Your task to perform on an android device: What's the weather going to be tomorrow? Image 0: 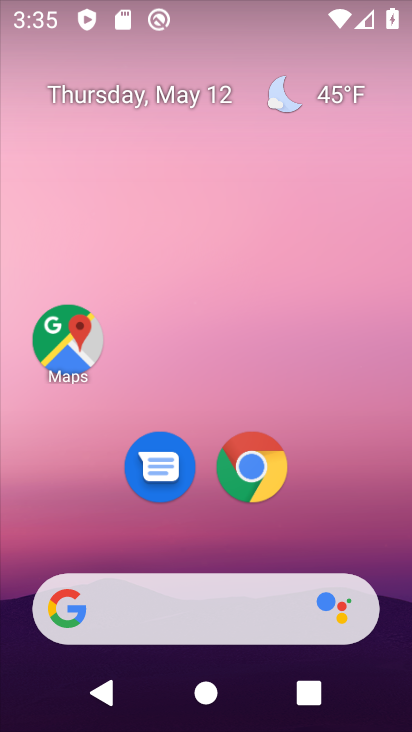
Step 0: click (350, 98)
Your task to perform on an android device: What's the weather going to be tomorrow? Image 1: 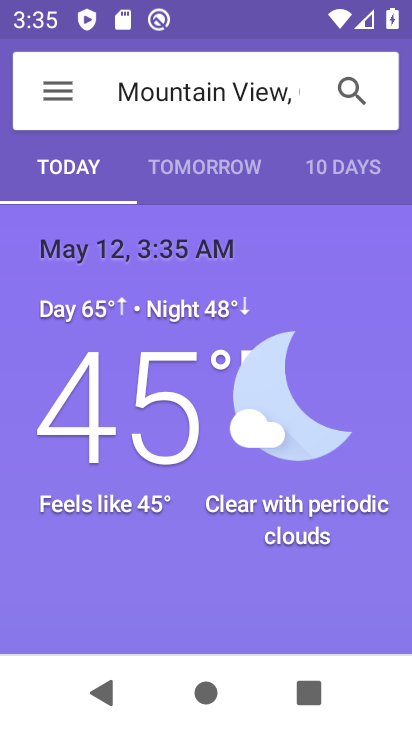
Step 1: click (211, 188)
Your task to perform on an android device: What's the weather going to be tomorrow? Image 2: 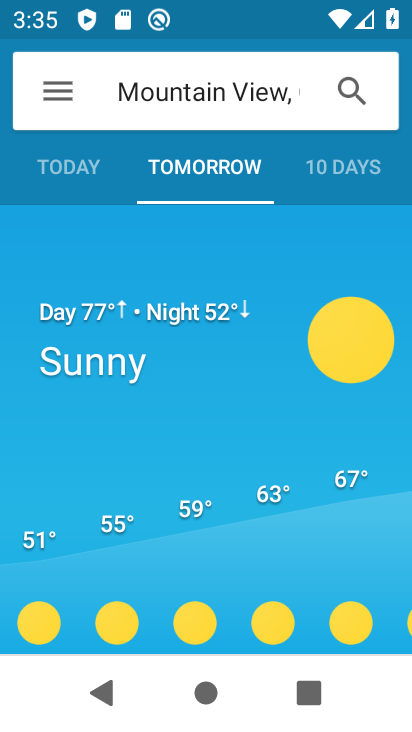
Step 2: task complete